Your task to perform on an android device: Find coffee shops on Maps Image 0: 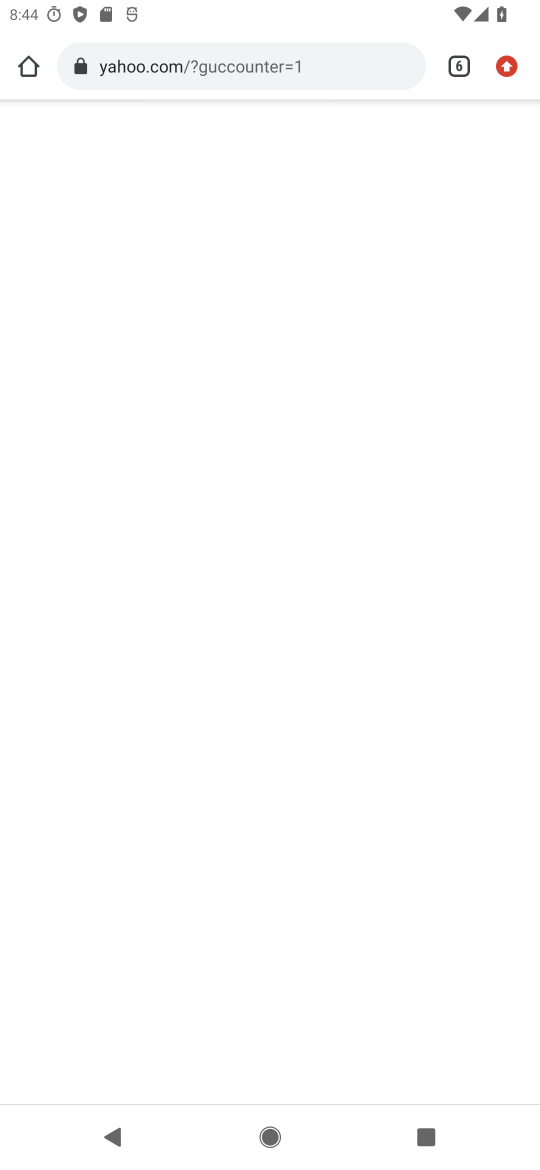
Step 0: press home button
Your task to perform on an android device: Find coffee shops on Maps Image 1: 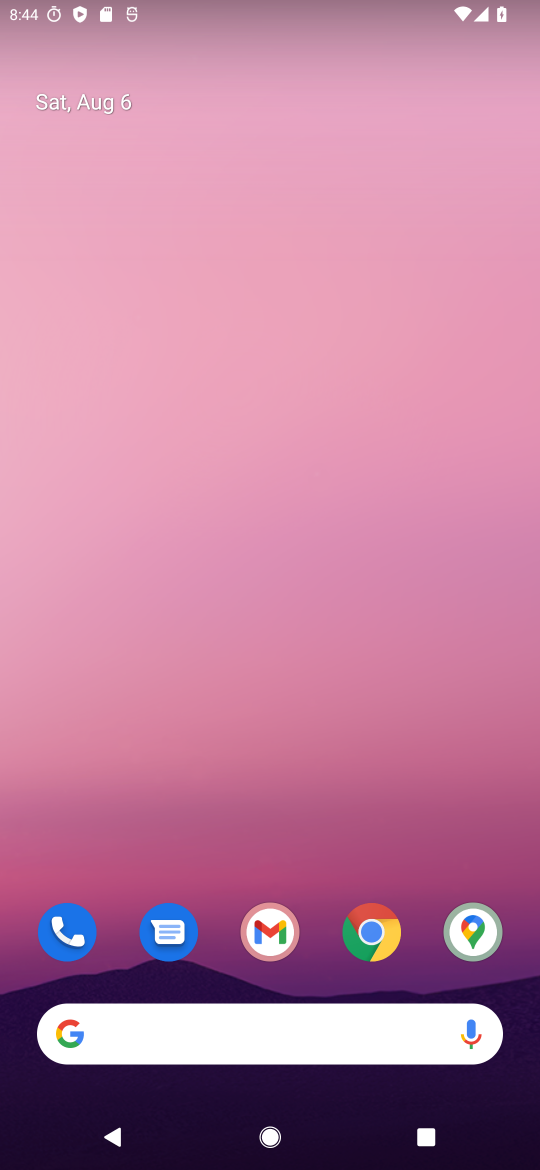
Step 1: drag from (311, 1019) to (540, 212)
Your task to perform on an android device: Find coffee shops on Maps Image 2: 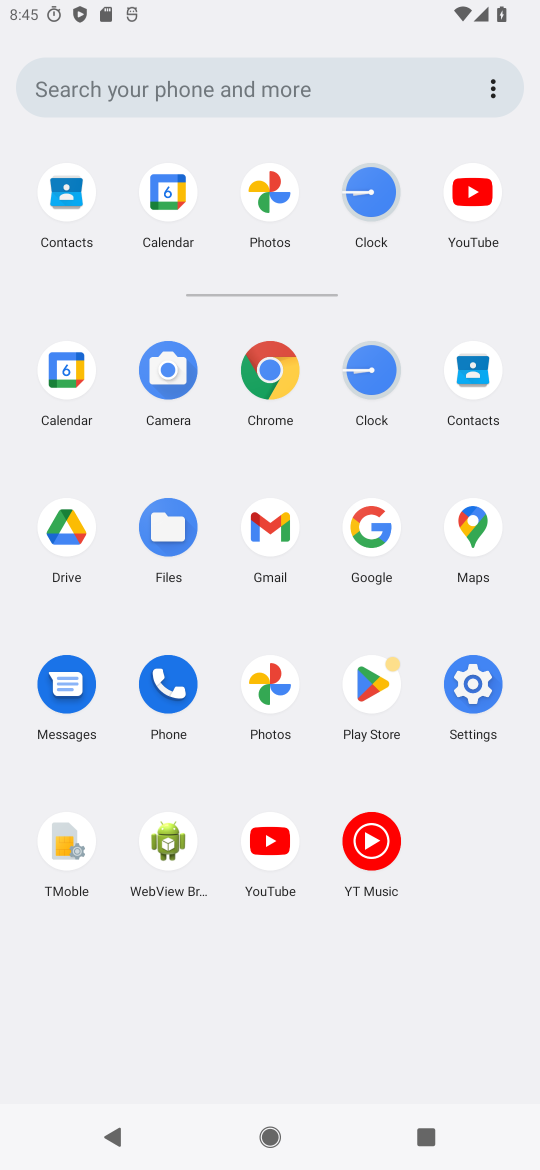
Step 2: click (476, 528)
Your task to perform on an android device: Find coffee shops on Maps Image 3: 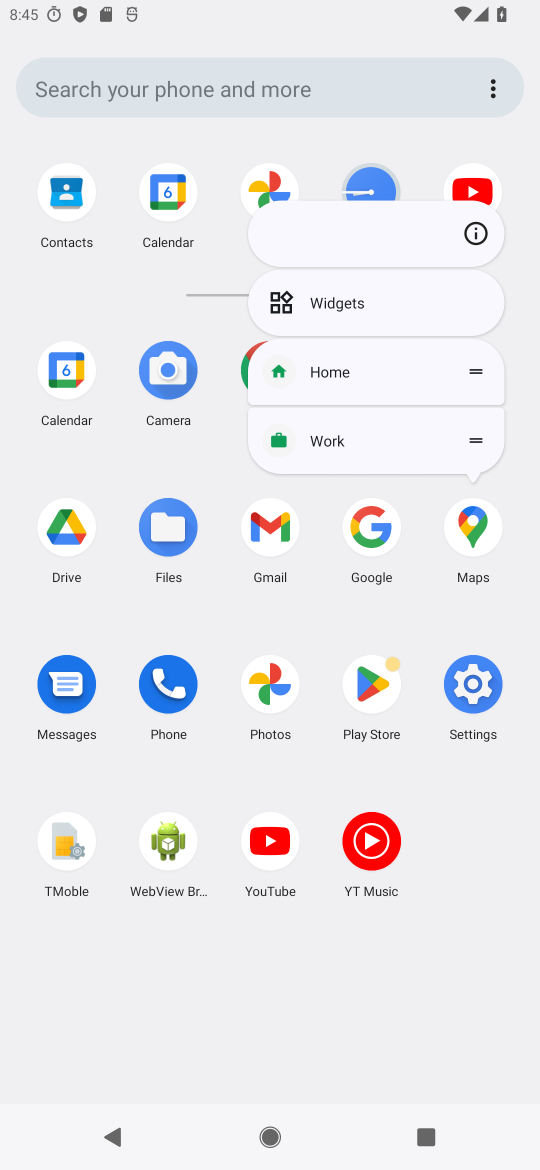
Step 3: click (476, 526)
Your task to perform on an android device: Find coffee shops on Maps Image 4: 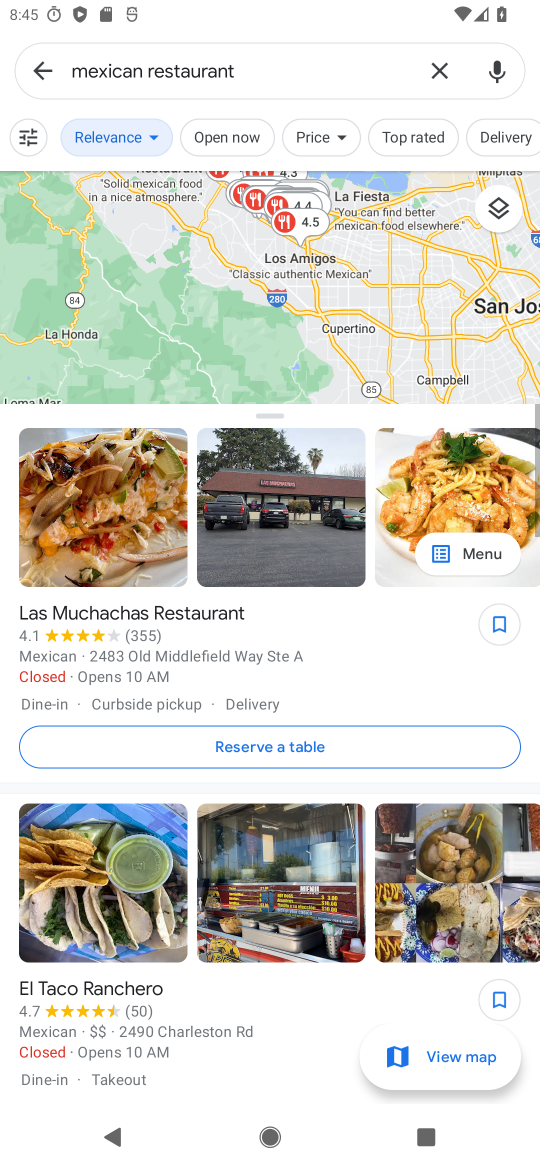
Step 4: click (436, 67)
Your task to perform on an android device: Find coffee shops on Maps Image 5: 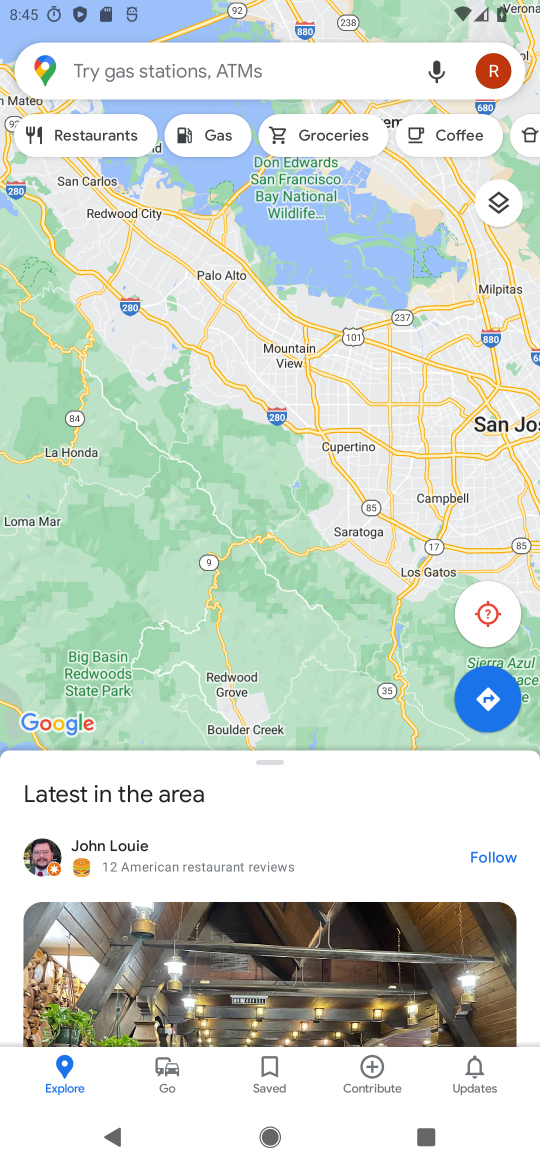
Step 5: click (191, 54)
Your task to perform on an android device: Find coffee shops on Maps Image 6: 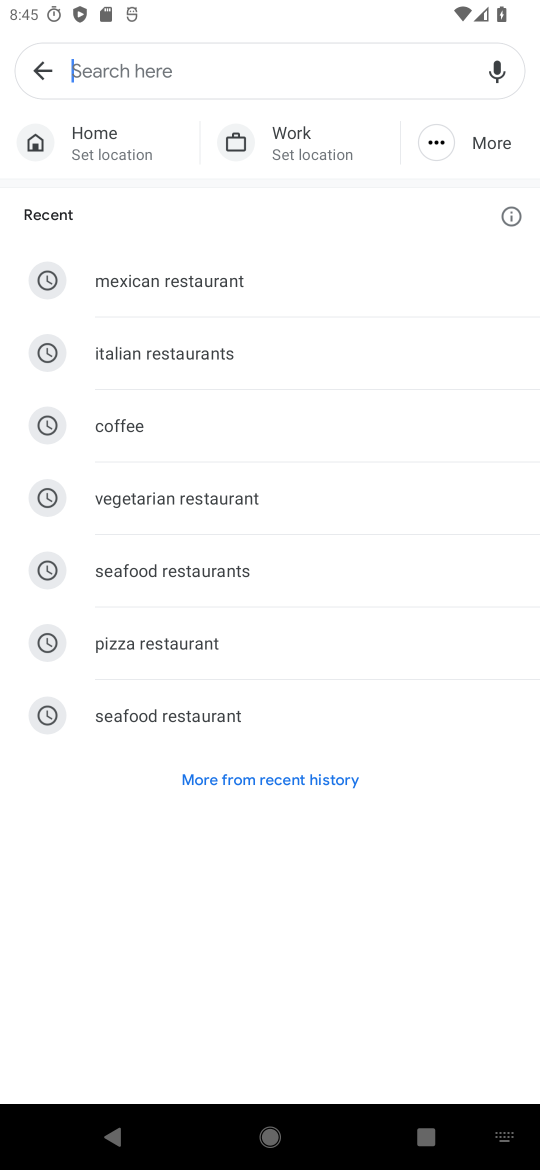
Step 6: click (145, 425)
Your task to perform on an android device: Find coffee shops on Maps Image 7: 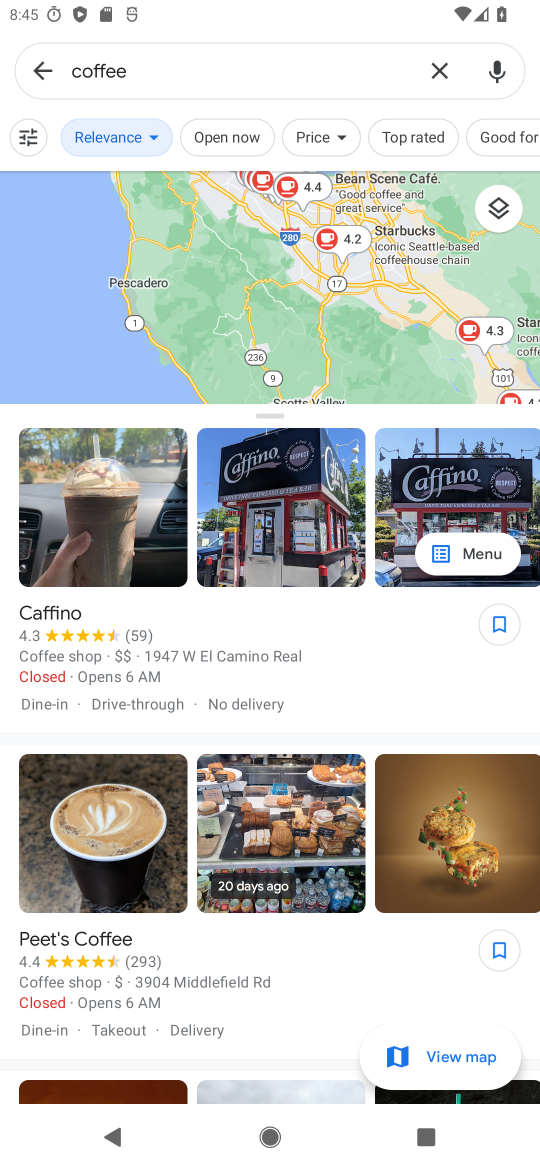
Step 7: task complete